Your task to perform on an android device: toggle javascript in the chrome app Image 0: 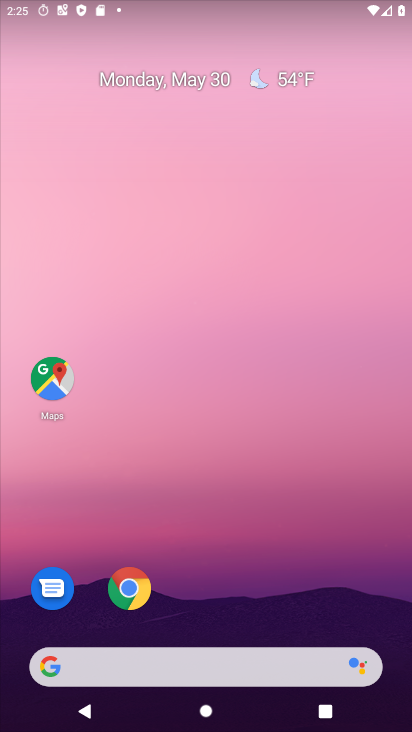
Step 0: drag from (242, 590) to (329, 33)
Your task to perform on an android device: toggle javascript in the chrome app Image 1: 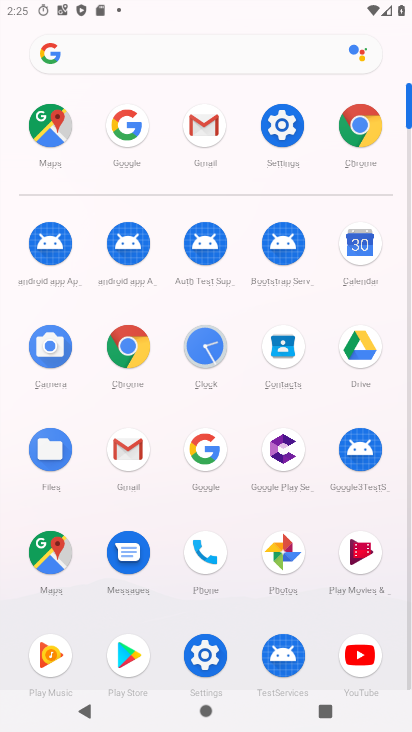
Step 1: click (360, 128)
Your task to perform on an android device: toggle javascript in the chrome app Image 2: 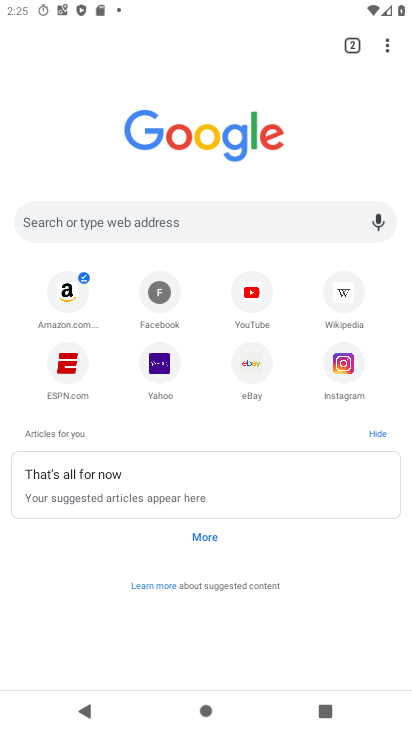
Step 2: click (381, 43)
Your task to perform on an android device: toggle javascript in the chrome app Image 3: 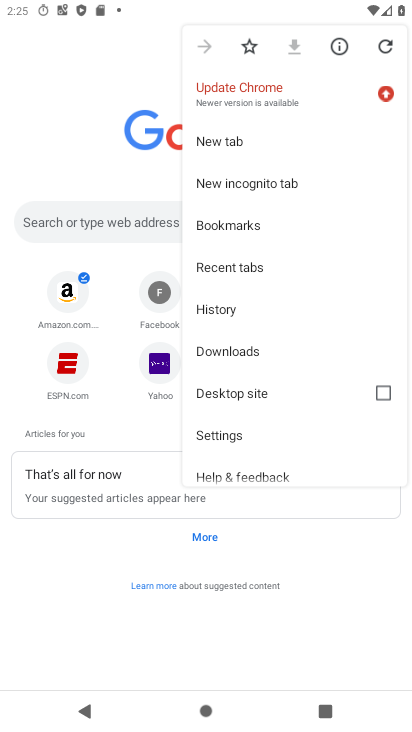
Step 3: click (244, 439)
Your task to perform on an android device: toggle javascript in the chrome app Image 4: 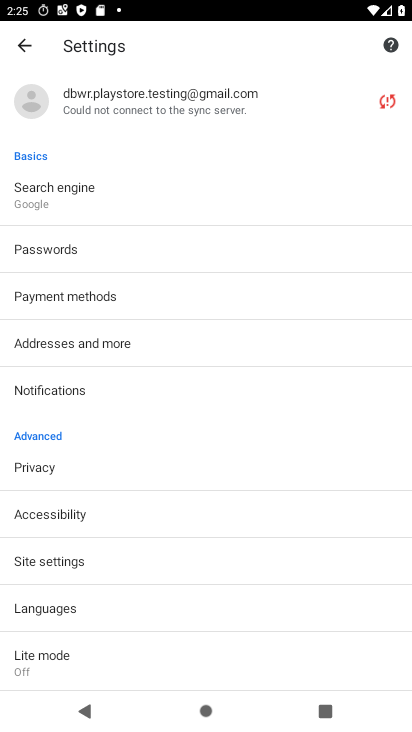
Step 4: drag from (181, 627) to (232, 141)
Your task to perform on an android device: toggle javascript in the chrome app Image 5: 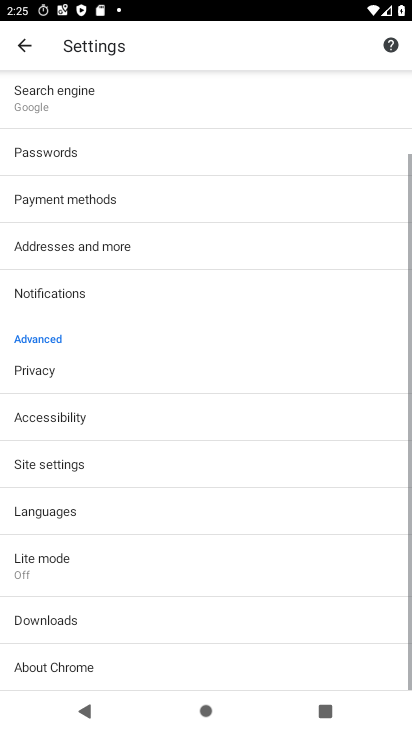
Step 5: click (62, 471)
Your task to perform on an android device: toggle javascript in the chrome app Image 6: 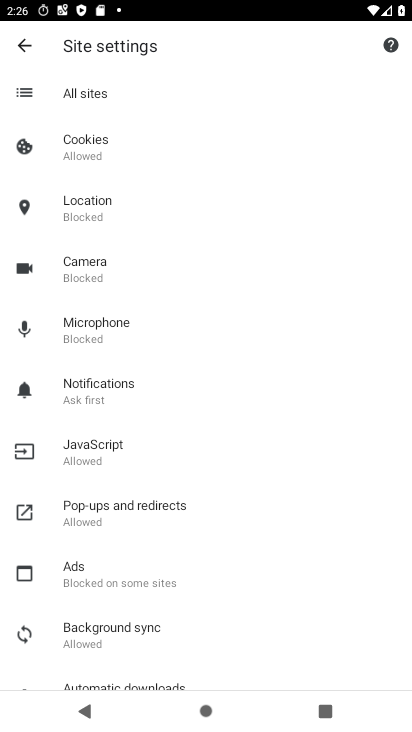
Step 6: click (119, 447)
Your task to perform on an android device: toggle javascript in the chrome app Image 7: 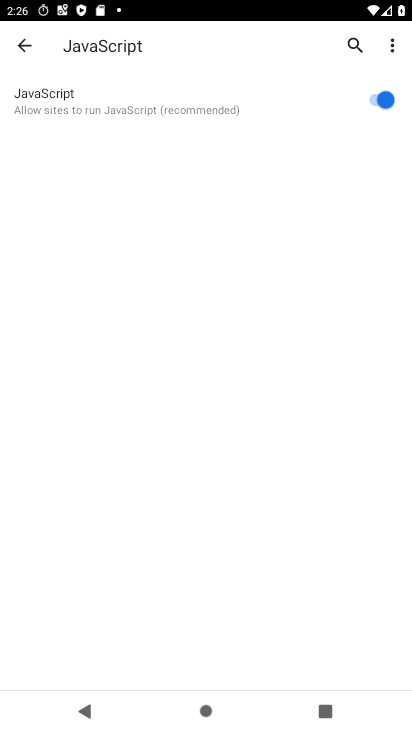
Step 7: click (383, 103)
Your task to perform on an android device: toggle javascript in the chrome app Image 8: 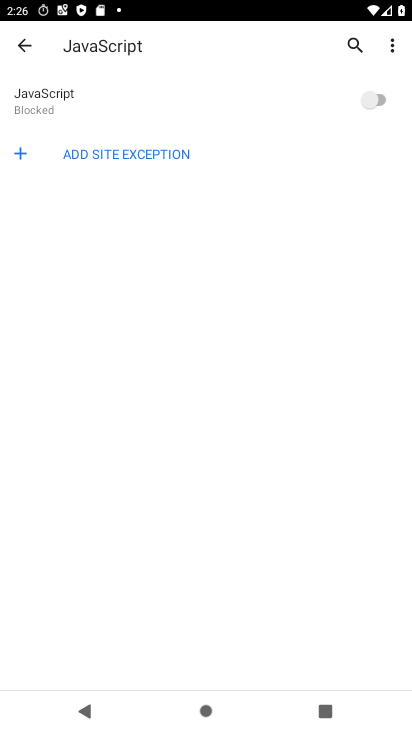
Step 8: task complete